Your task to perform on an android device: Search for sushi restaurants on Maps Image 0: 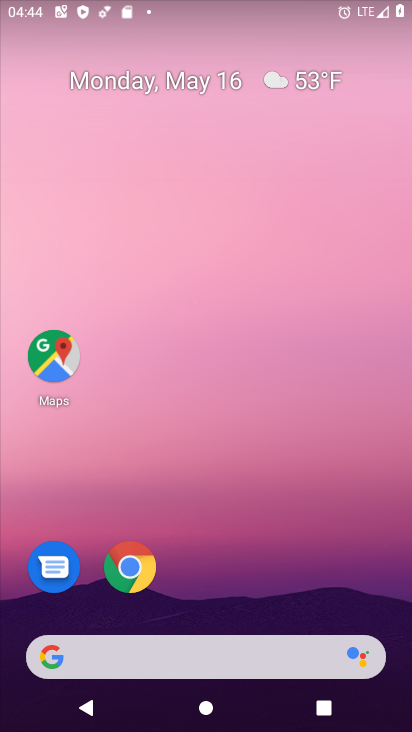
Step 0: drag from (398, 662) to (343, 109)
Your task to perform on an android device: Search for sushi restaurants on Maps Image 1: 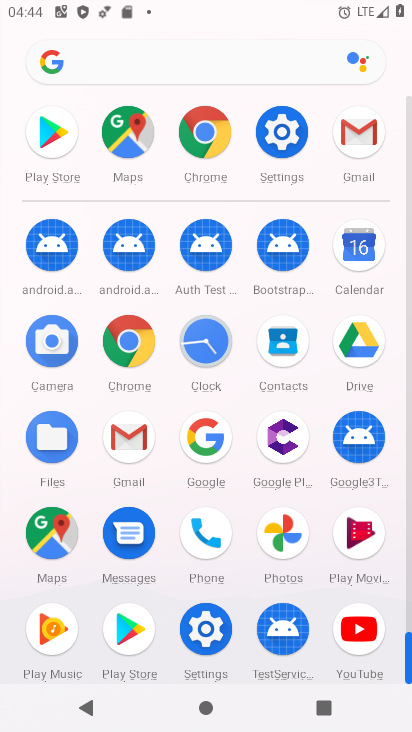
Step 1: click (48, 527)
Your task to perform on an android device: Search for sushi restaurants on Maps Image 2: 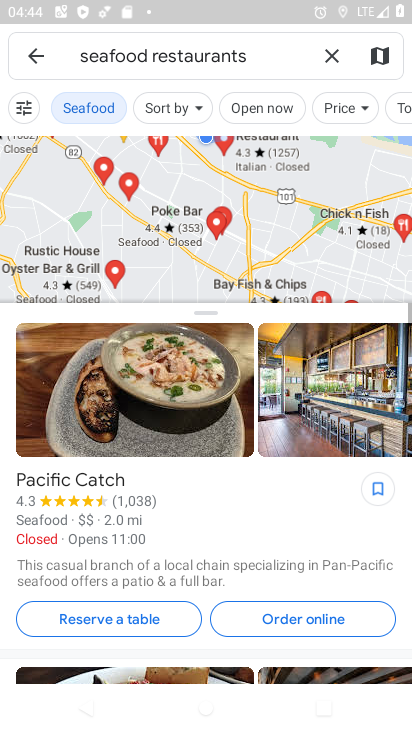
Step 2: click (333, 57)
Your task to perform on an android device: Search for sushi restaurants on Maps Image 3: 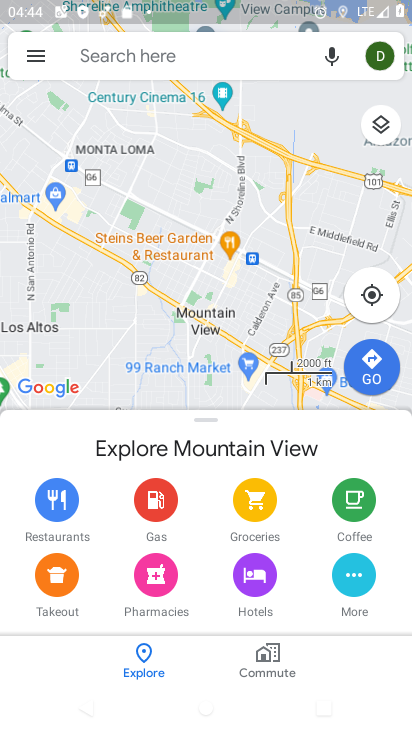
Step 3: click (223, 68)
Your task to perform on an android device: Search for sushi restaurants on Maps Image 4: 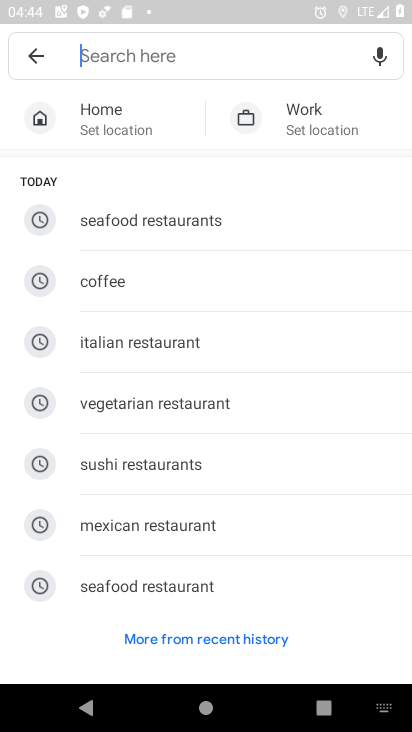
Step 4: click (138, 450)
Your task to perform on an android device: Search for sushi restaurants on Maps Image 5: 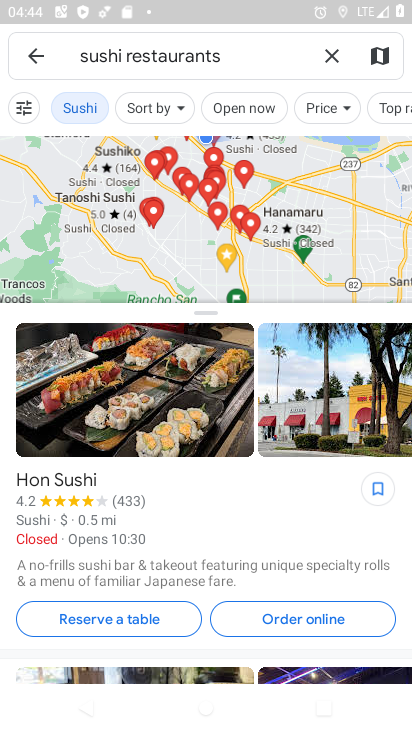
Step 5: task complete